Your task to perform on an android device: change the upload size in google photos Image 0: 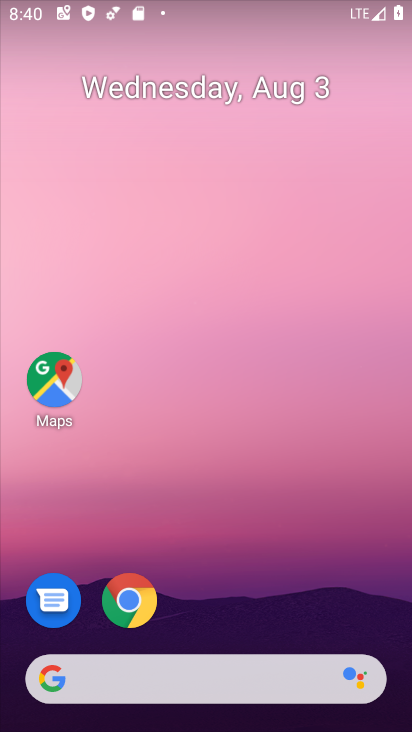
Step 0: drag from (209, 626) to (232, 11)
Your task to perform on an android device: change the upload size in google photos Image 1: 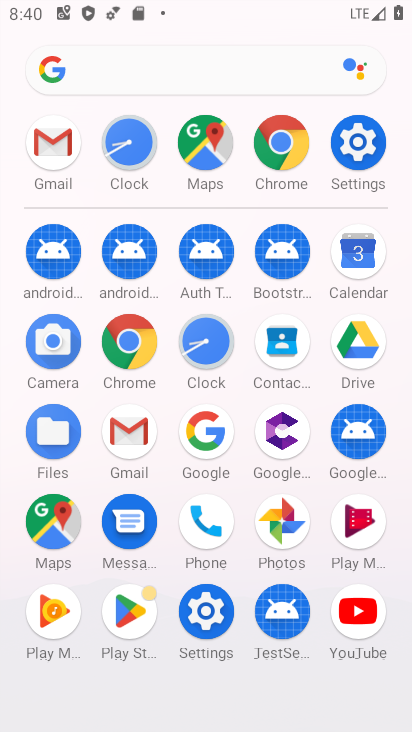
Step 1: click (277, 514)
Your task to perform on an android device: change the upload size in google photos Image 2: 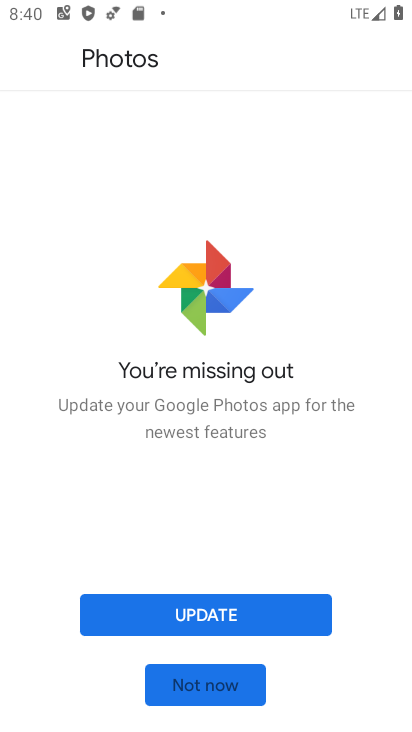
Step 2: click (209, 674)
Your task to perform on an android device: change the upload size in google photos Image 3: 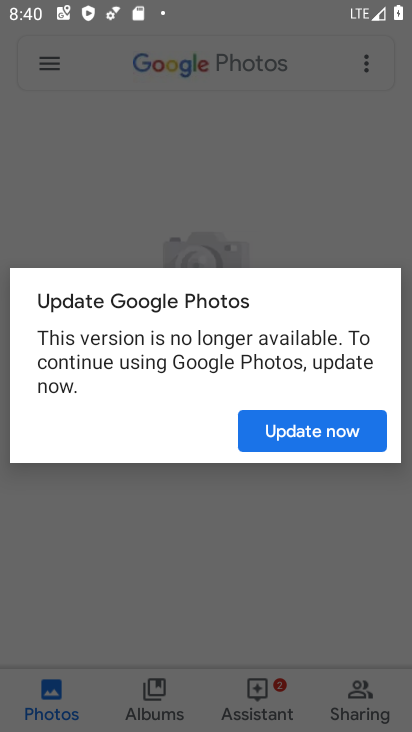
Step 3: click (287, 430)
Your task to perform on an android device: change the upload size in google photos Image 4: 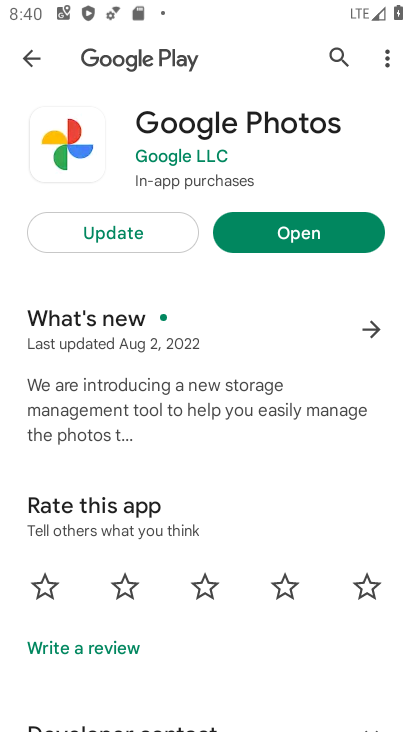
Step 4: click (295, 224)
Your task to perform on an android device: change the upload size in google photos Image 5: 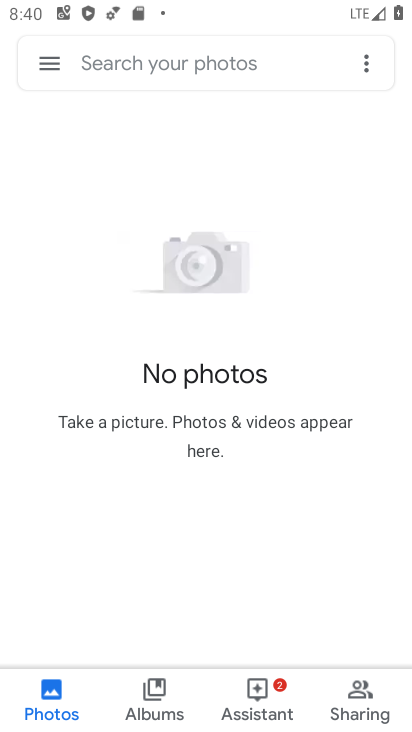
Step 5: click (43, 53)
Your task to perform on an android device: change the upload size in google photos Image 6: 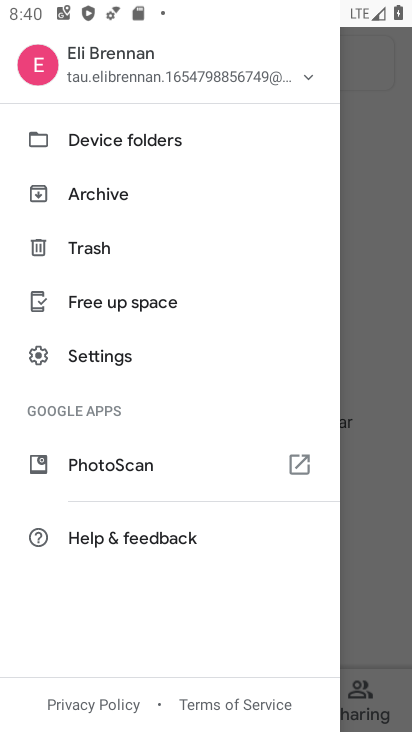
Step 6: click (110, 361)
Your task to perform on an android device: change the upload size in google photos Image 7: 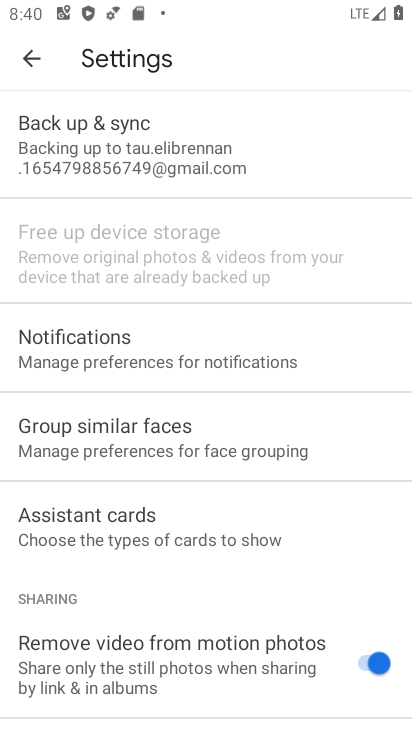
Step 7: click (118, 127)
Your task to perform on an android device: change the upload size in google photos Image 8: 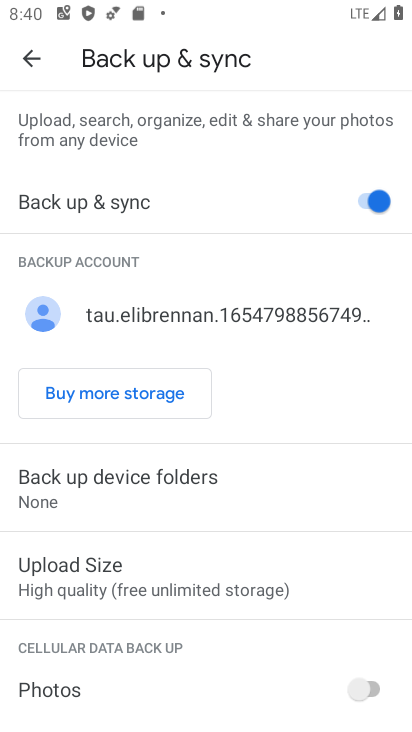
Step 8: click (104, 586)
Your task to perform on an android device: change the upload size in google photos Image 9: 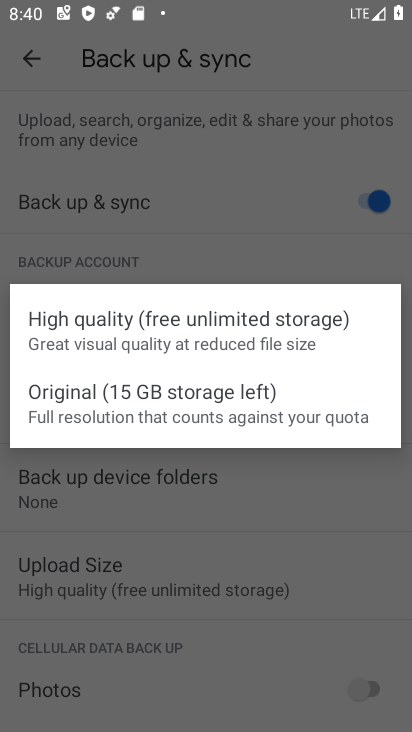
Step 9: click (133, 409)
Your task to perform on an android device: change the upload size in google photos Image 10: 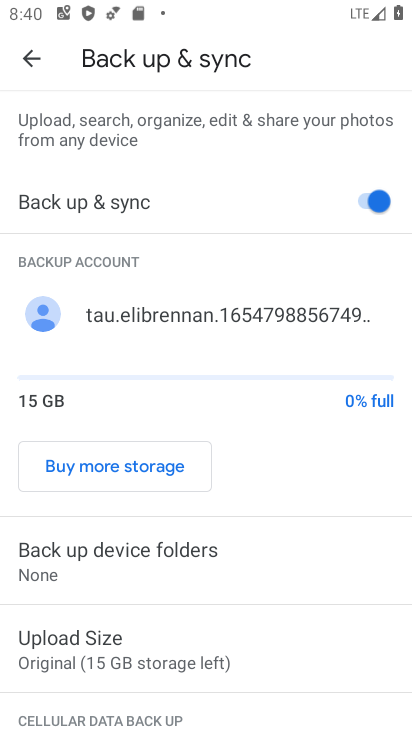
Step 10: task complete